Your task to perform on an android device: Open Google Image 0: 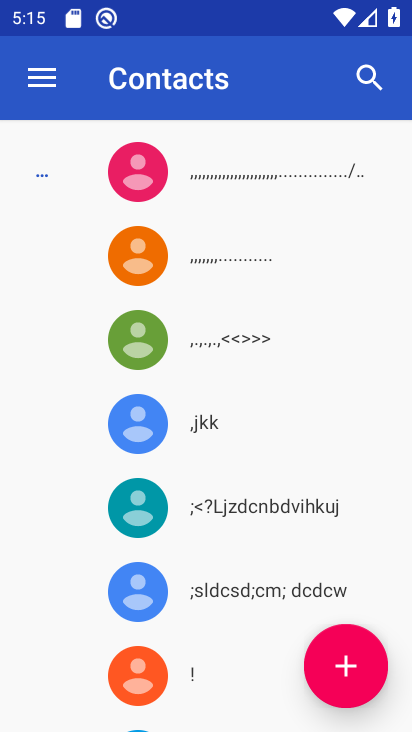
Step 0: press home button
Your task to perform on an android device: Open Google Image 1: 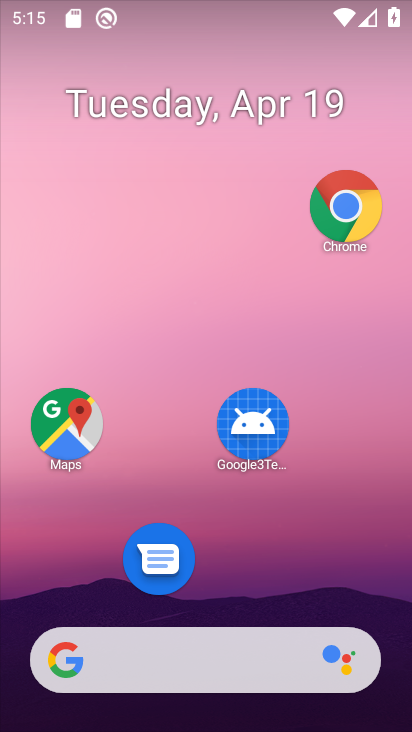
Step 1: drag from (256, 691) to (242, 314)
Your task to perform on an android device: Open Google Image 2: 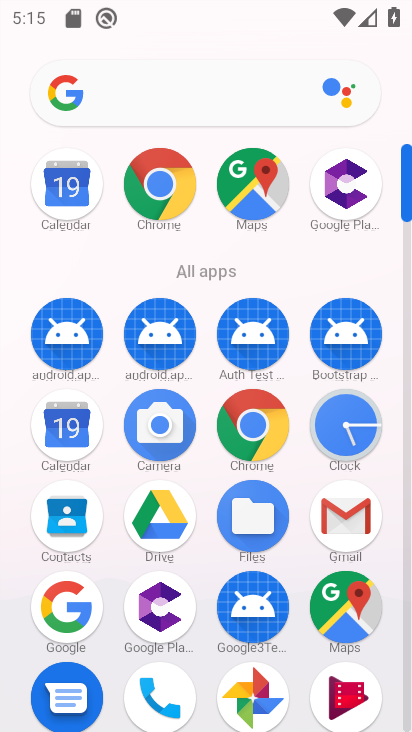
Step 2: click (263, 430)
Your task to perform on an android device: Open Google Image 3: 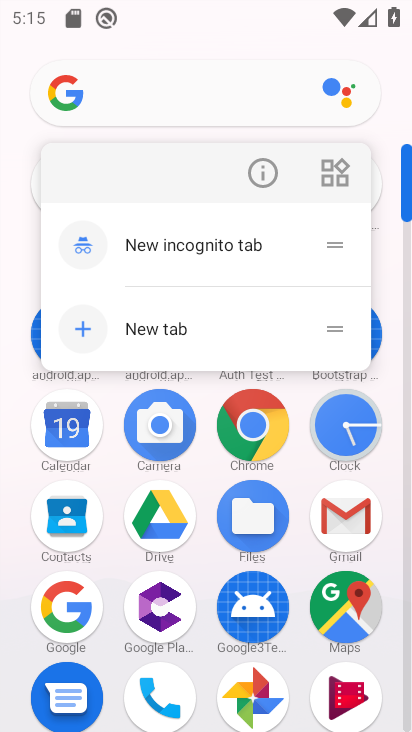
Step 3: click (263, 430)
Your task to perform on an android device: Open Google Image 4: 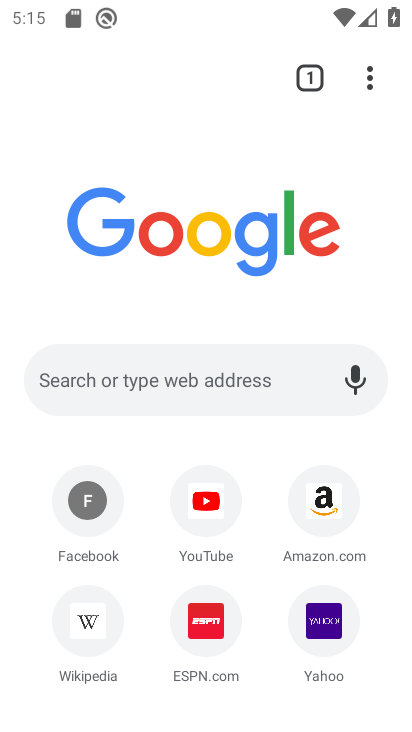
Step 4: task complete